Your task to perform on an android device: turn vacation reply on in the gmail app Image 0: 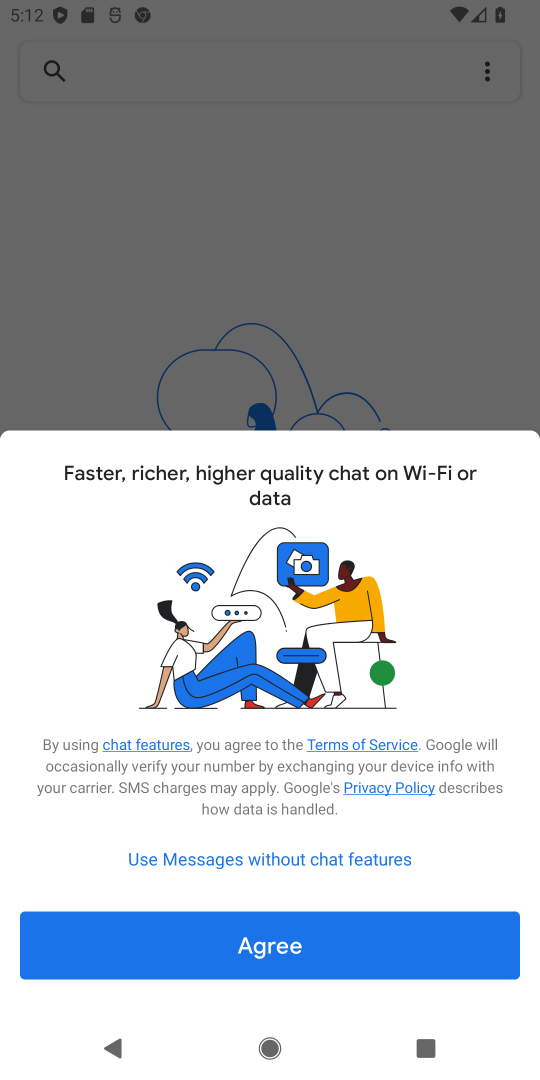
Step 0: press home button
Your task to perform on an android device: turn vacation reply on in the gmail app Image 1: 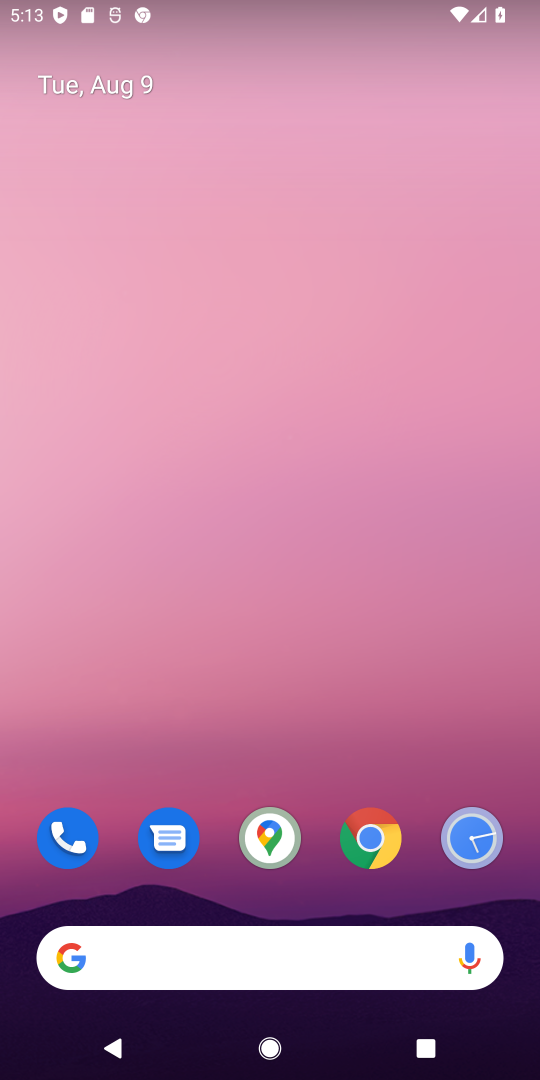
Step 1: click (367, 834)
Your task to perform on an android device: turn vacation reply on in the gmail app Image 2: 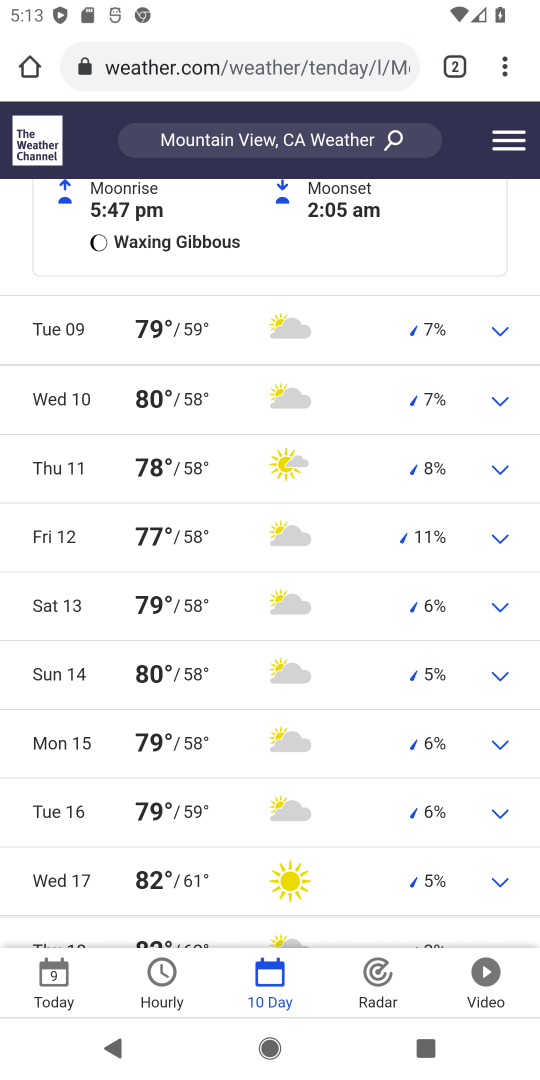
Step 2: press home button
Your task to perform on an android device: turn vacation reply on in the gmail app Image 3: 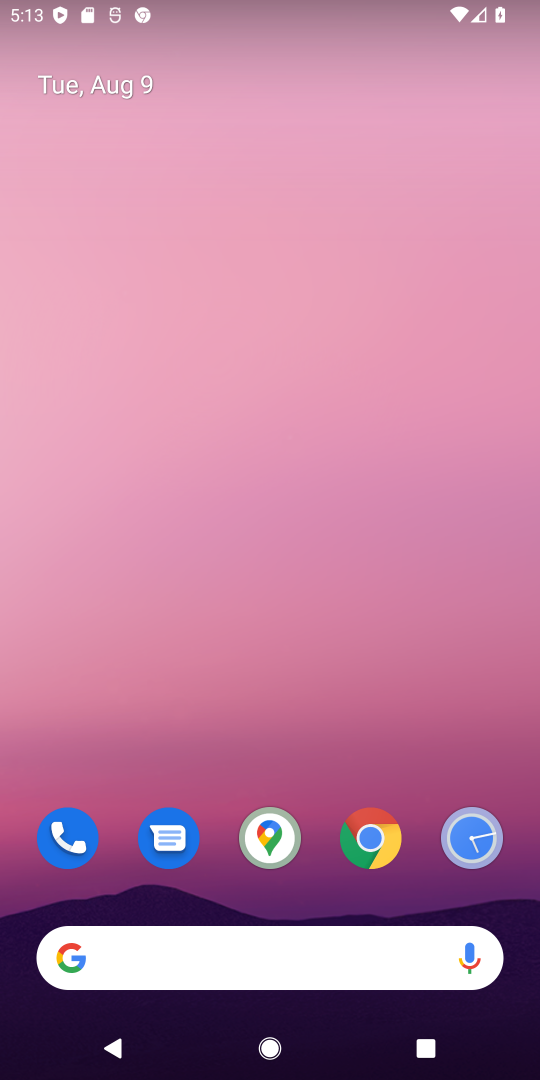
Step 3: drag from (340, 785) to (256, 157)
Your task to perform on an android device: turn vacation reply on in the gmail app Image 4: 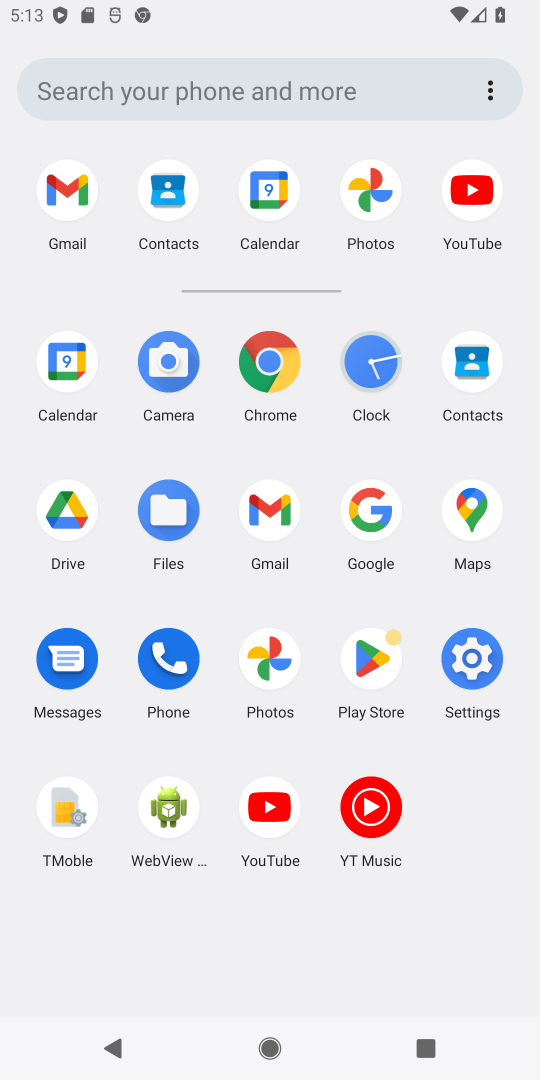
Step 4: click (83, 176)
Your task to perform on an android device: turn vacation reply on in the gmail app Image 5: 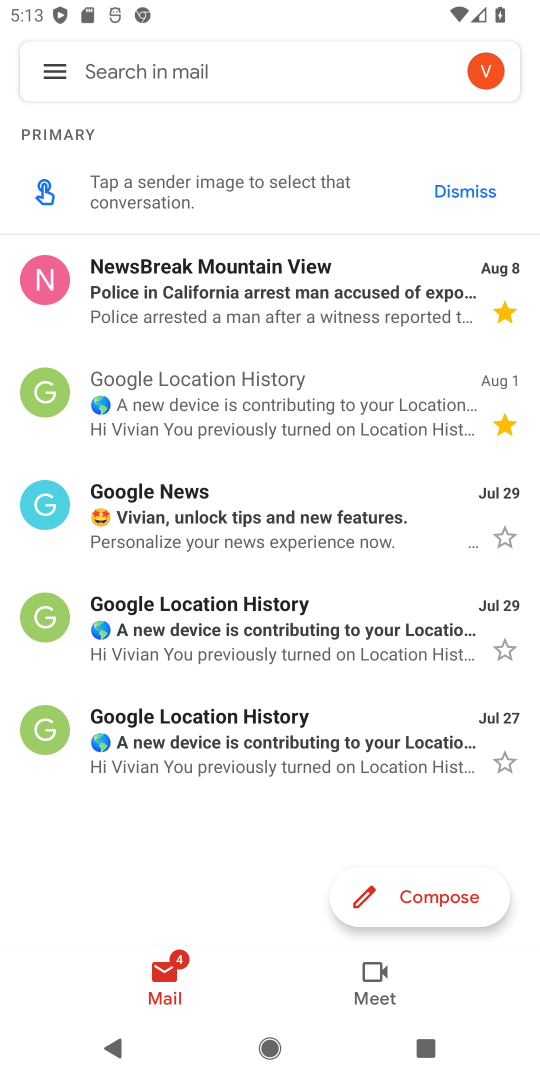
Step 5: click (55, 70)
Your task to perform on an android device: turn vacation reply on in the gmail app Image 6: 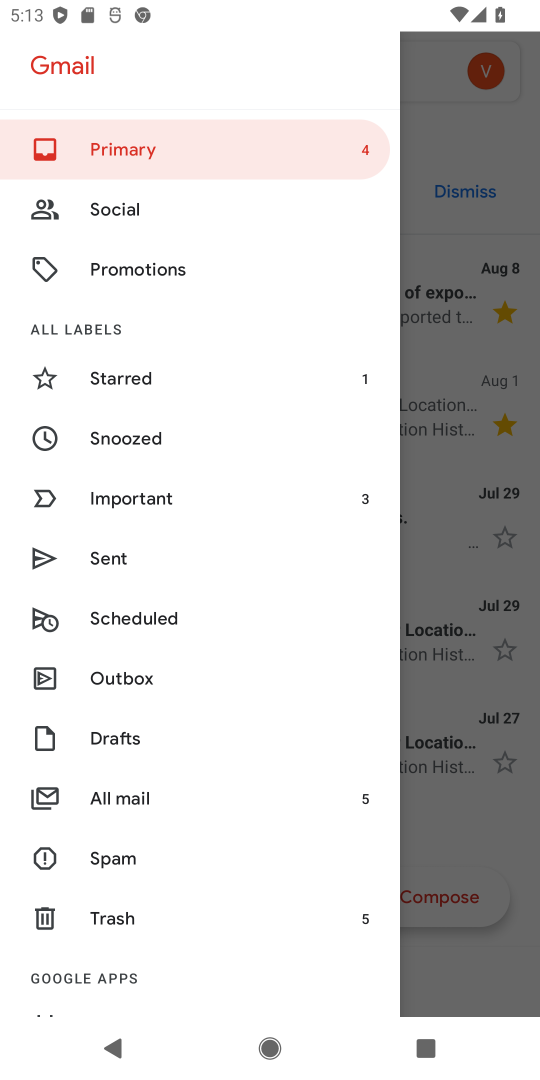
Step 6: drag from (175, 882) to (167, 117)
Your task to perform on an android device: turn vacation reply on in the gmail app Image 7: 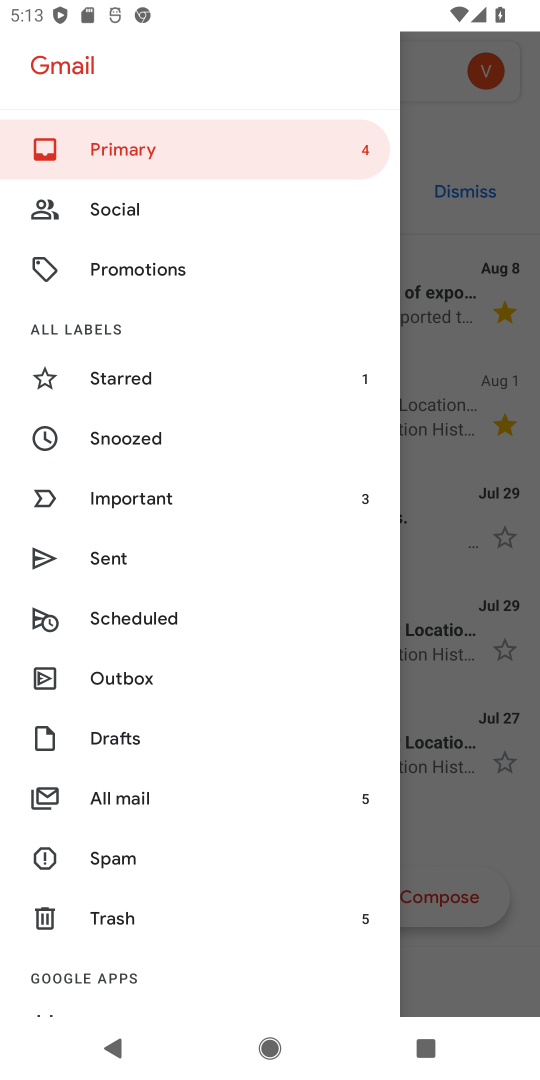
Step 7: drag from (287, 974) to (254, 361)
Your task to perform on an android device: turn vacation reply on in the gmail app Image 8: 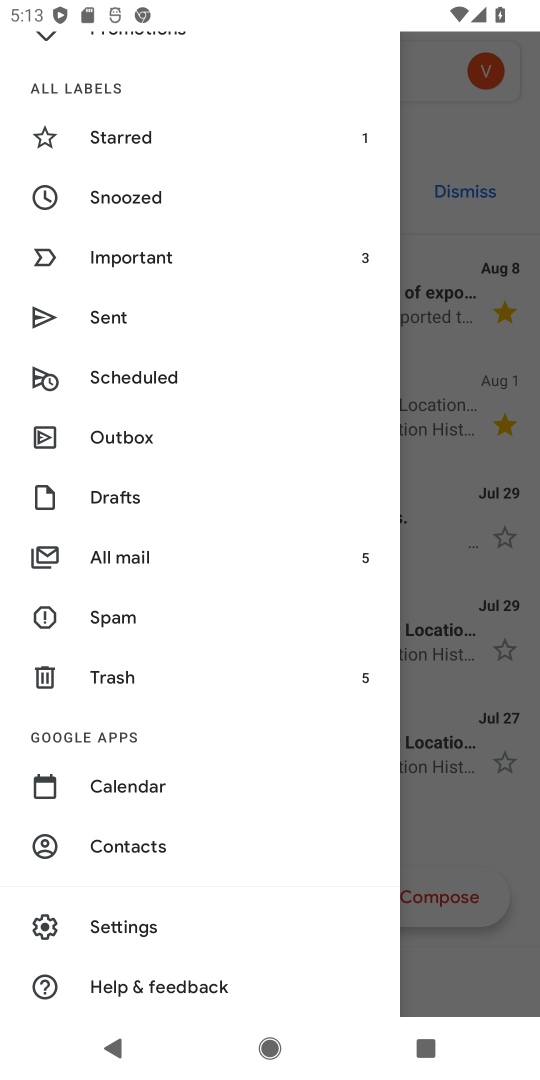
Step 8: click (209, 933)
Your task to perform on an android device: turn vacation reply on in the gmail app Image 9: 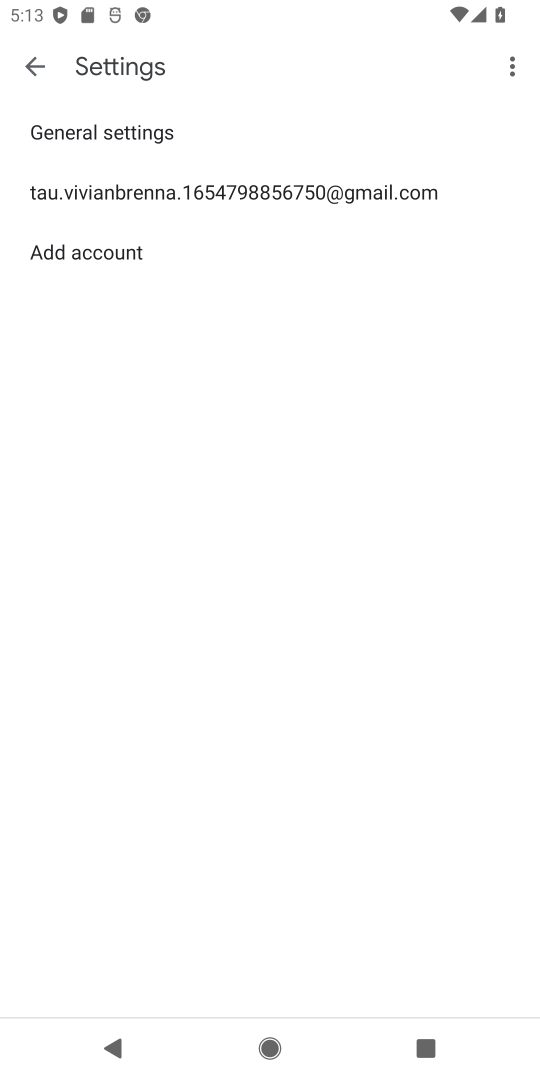
Step 9: click (201, 201)
Your task to perform on an android device: turn vacation reply on in the gmail app Image 10: 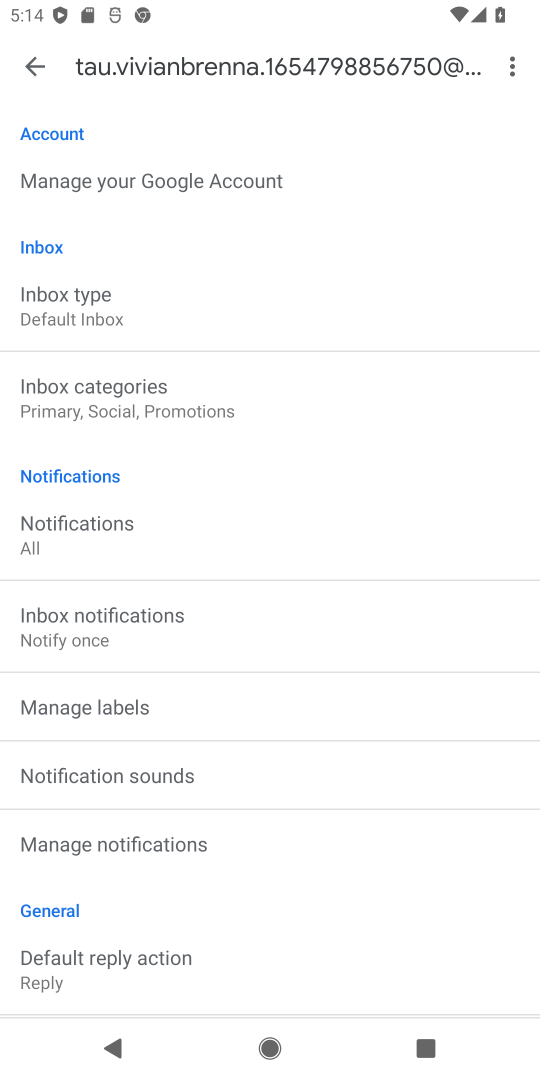
Step 10: drag from (174, 881) to (122, 161)
Your task to perform on an android device: turn vacation reply on in the gmail app Image 11: 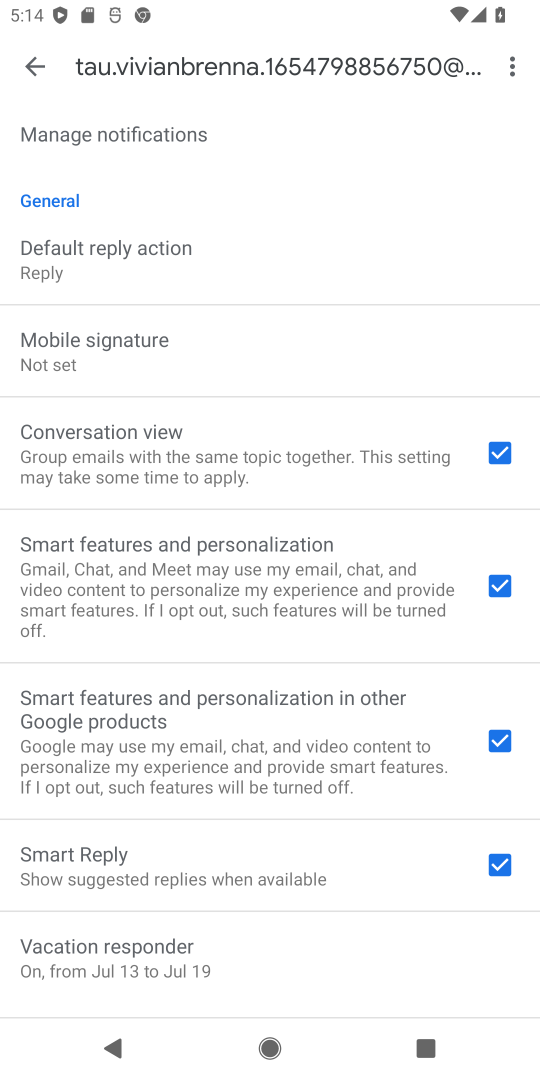
Step 11: click (180, 964)
Your task to perform on an android device: turn vacation reply on in the gmail app Image 12: 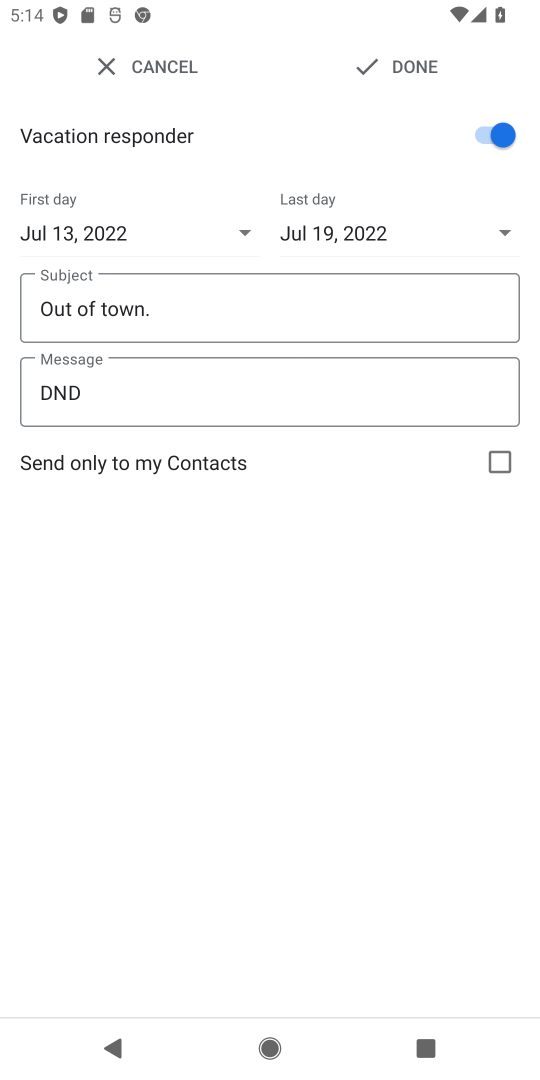
Step 12: click (282, 301)
Your task to perform on an android device: turn vacation reply on in the gmail app Image 13: 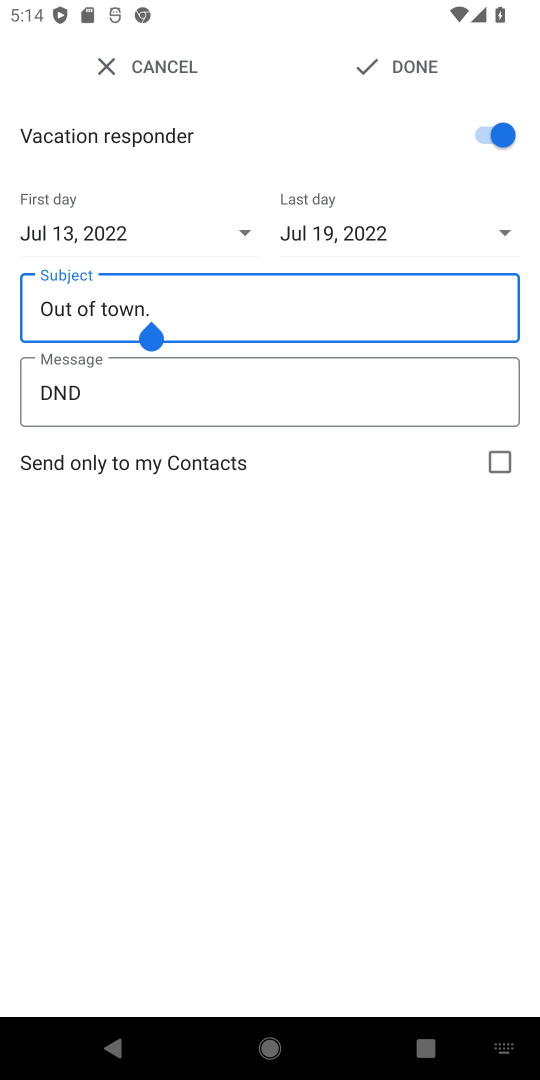
Step 13: type "bvhjvjh"
Your task to perform on an android device: turn vacation reply on in the gmail app Image 14: 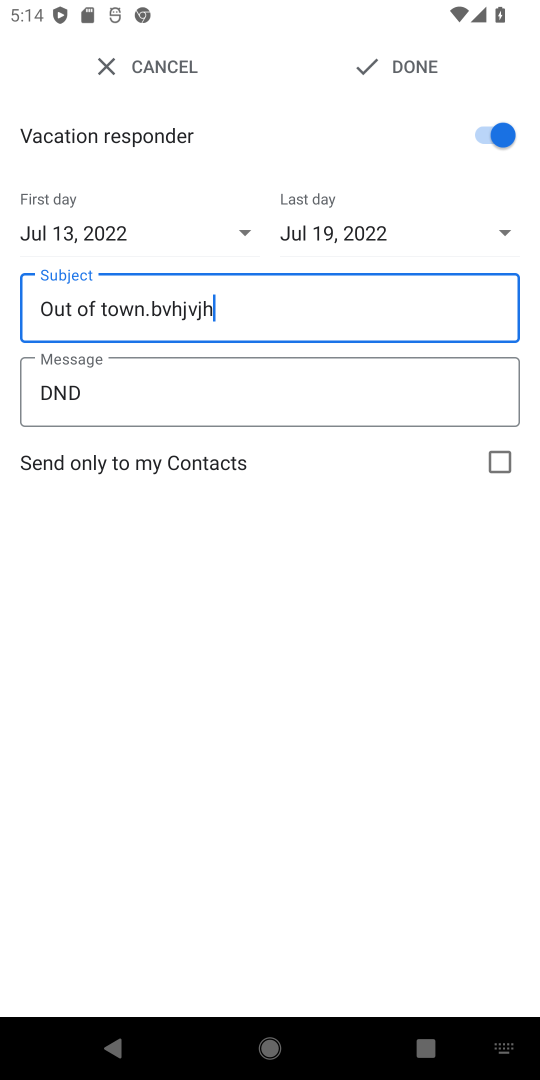
Step 14: click (407, 73)
Your task to perform on an android device: turn vacation reply on in the gmail app Image 15: 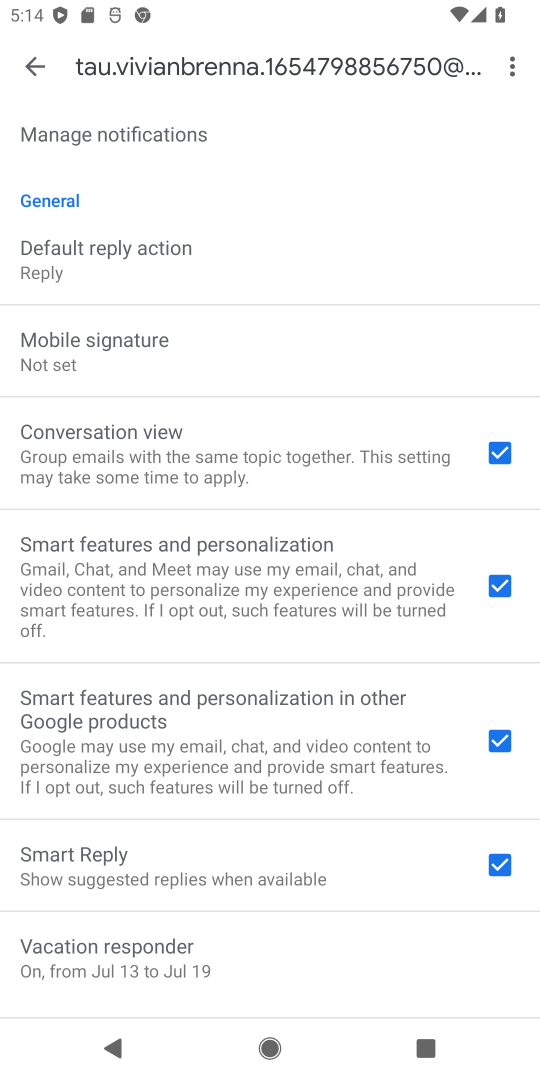
Step 15: task complete